Your task to perform on an android device: Is it going to rain tomorrow? Image 0: 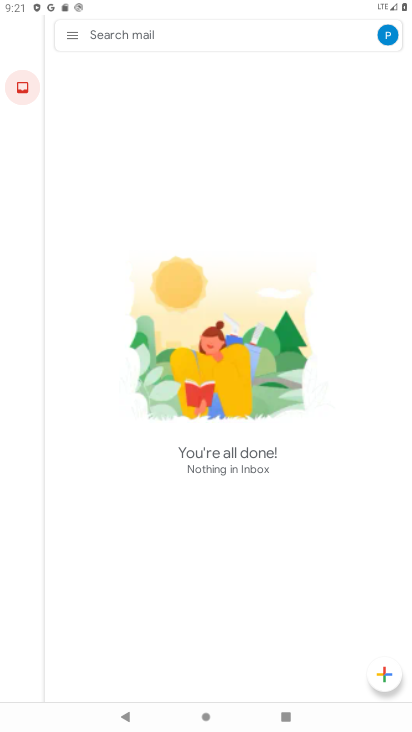
Step 0: press home button
Your task to perform on an android device: Is it going to rain tomorrow? Image 1: 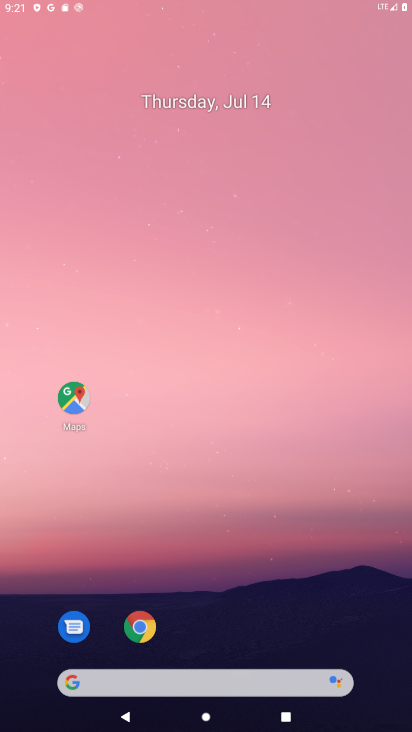
Step 1: press home button
Your task to perform on an android device: Is it going to rain tomorrow? Image 2: 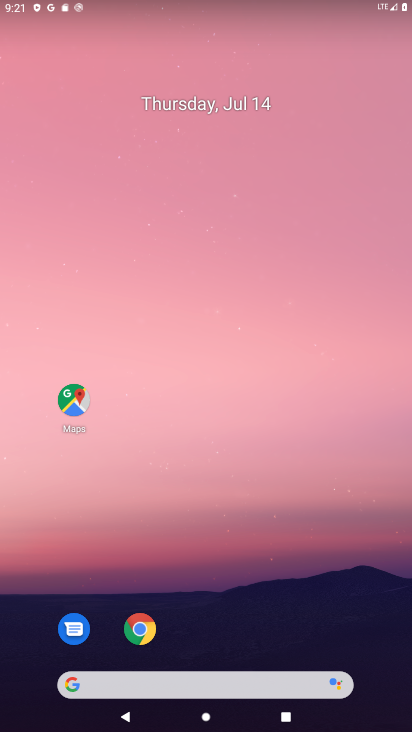
Step 2: drag from (63, 445) to (260, 41)
Your task to perform on an android device: Is it going to rain tomorrow? Image 3: 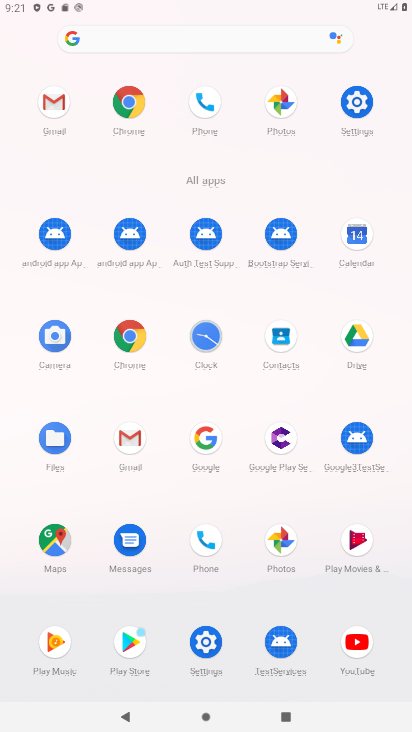
Step 3: click (346, 122)
Your task to perform on an android device: Is it going to rain tomorrow? Image 4: 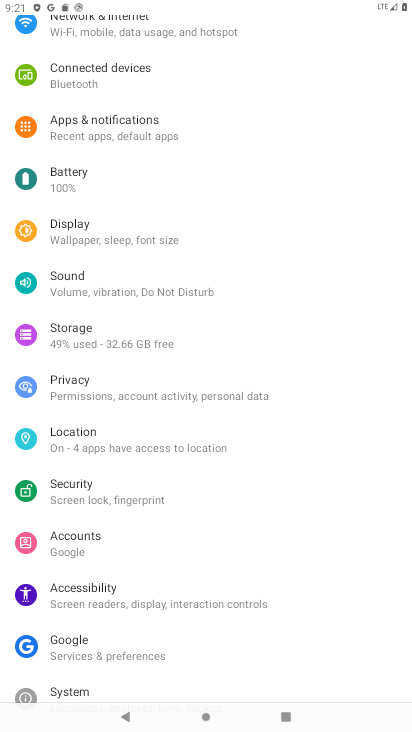
Step 4: press home button
Your task to perform on an android device: Is it going to rain tomorrow? Image 5: 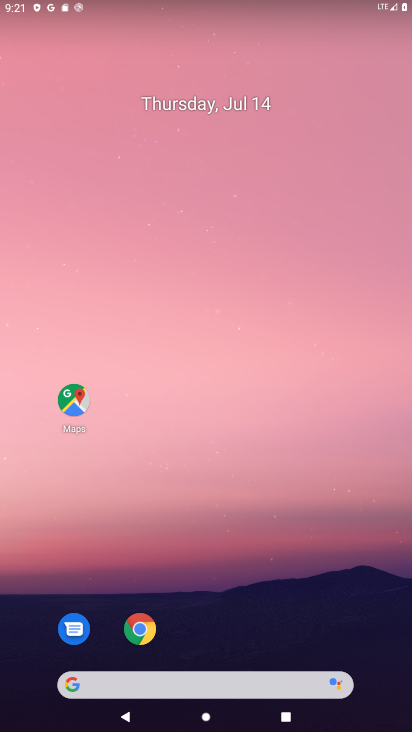
Step 5: click (131, 688)
Your task to perform on an android device: Is it going to rain tomorrow? Image 6: 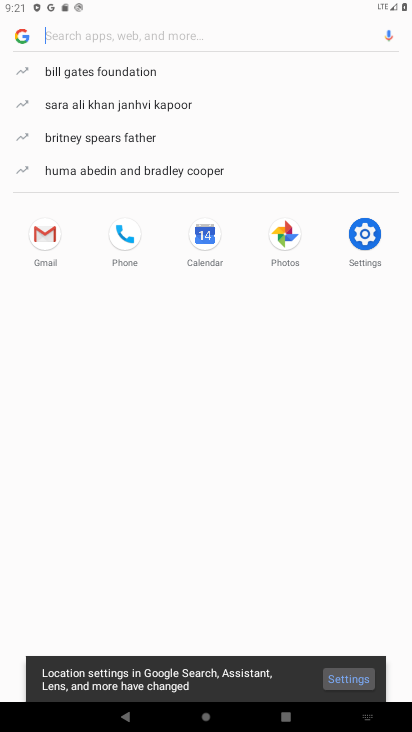
Step 6: press home button
Your task to perform on an android device: Is it going to rain tomorrow? Image 7: 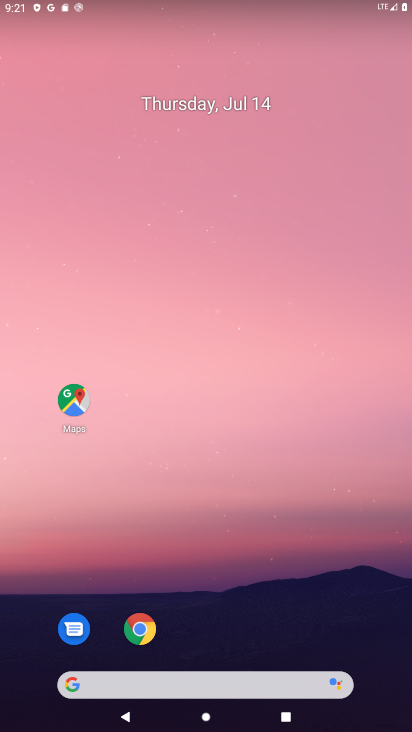
Step 7: click (122, 681)
Your task to perform on an android device: Is it going to rain tomorrow? Image 8: 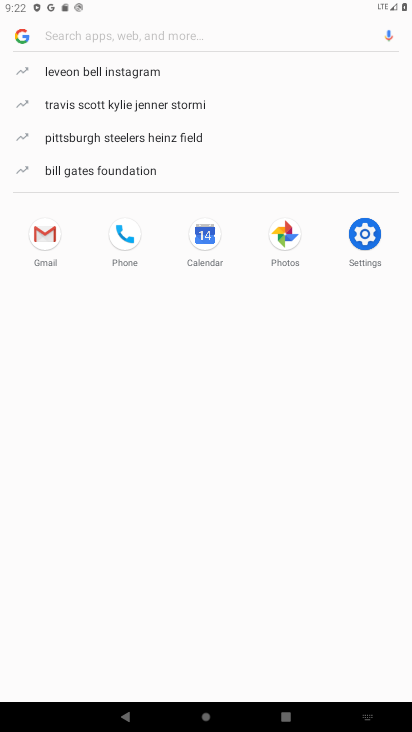
Step 8: click (97, 22)
Your task to perform on an android device: Is it going to rain tomorrow? Image 9: 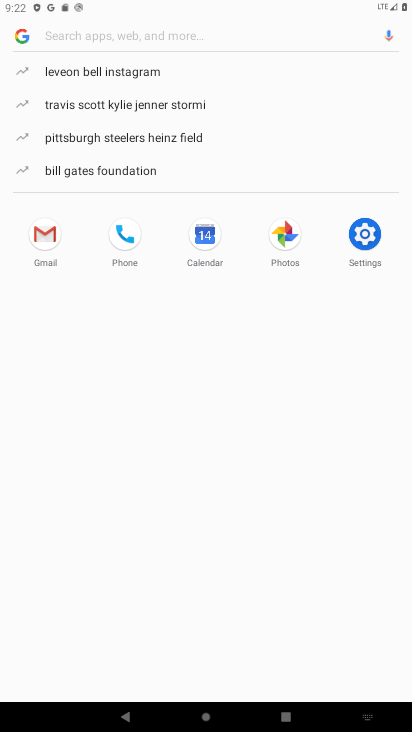
Step 9: type "rain tomorrow"
Your task to perform on an android device: Is it going to rain tomorrow? Image 10: 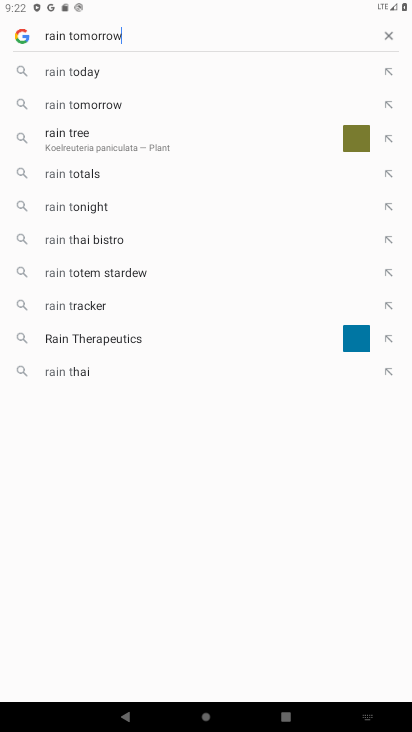
Step 10: type ""
Your task to perform on an android device: Is it going to rain tomorrow? Image 11: 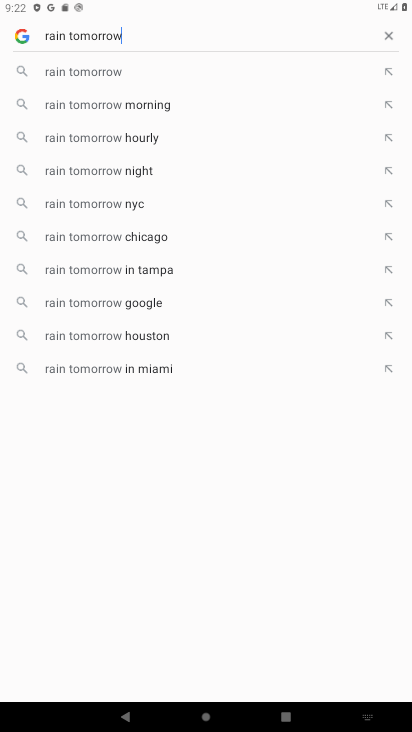
Step 11: click (47, 79)
Your task to perform on an android device: Is it going to rain tomorrow? Image 12: 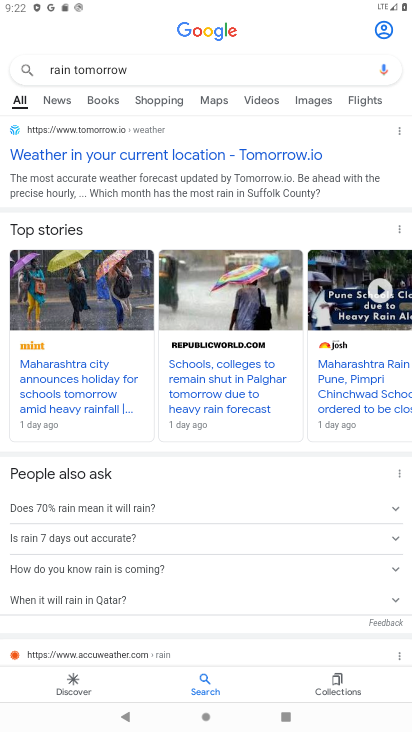
Step 12: task complete